Your task to perform on an android device: When is my next meeting? Image 0: 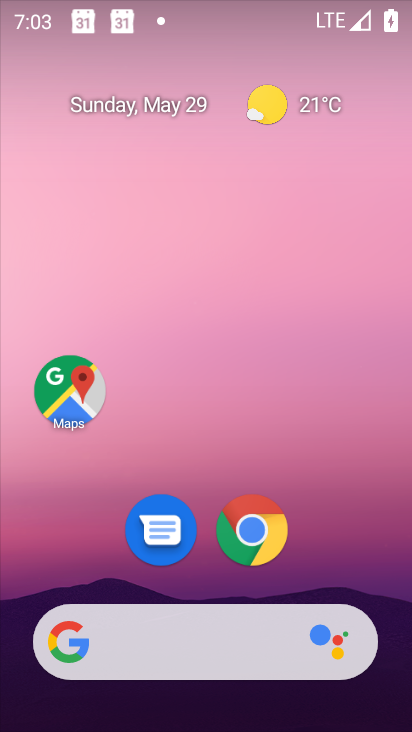
Step 0: press home button
Your task to perform on an android device: When is my next meeting? Image 1: 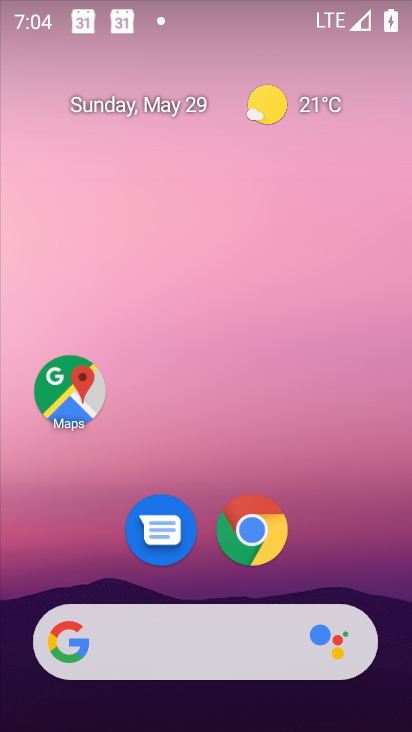
Step 1: drag from (248, 690) to (281, 165)
Your task to perform on an android device: When is my next meeting? Image 2: 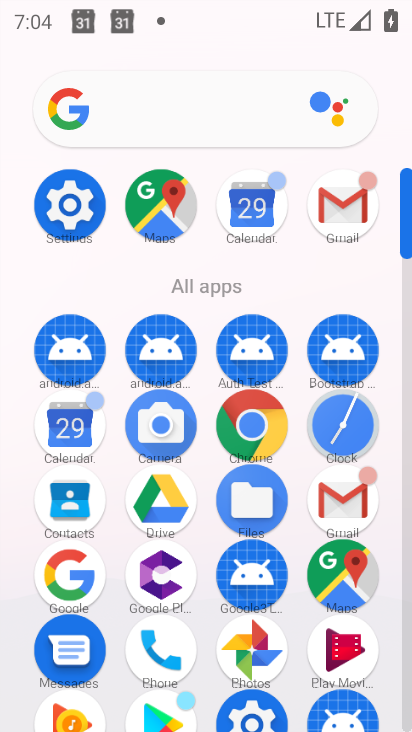
Step 2: click (61, 421)
Your task to perform on an android device: When is my next meeting? Image 3: 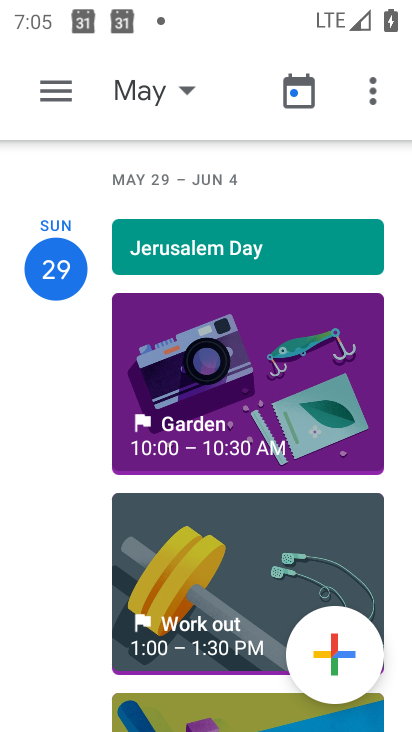
Step 3: task complete